Your task to perform on an android device: Open Maps and search for coffee Image 0: 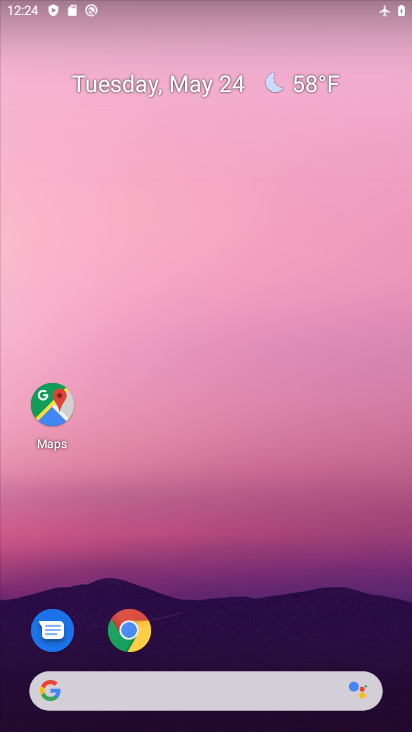
Step 0: click (56, 407)
Your task to perform on an android device: Open Maps and search for coffee Image 1: 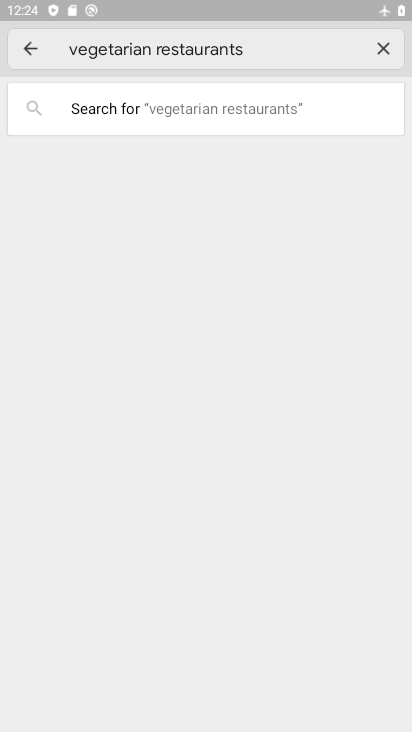
Step 1: click (382, 50)
Your task to perform on an android device: Open Maps and search for coffee Image 2: 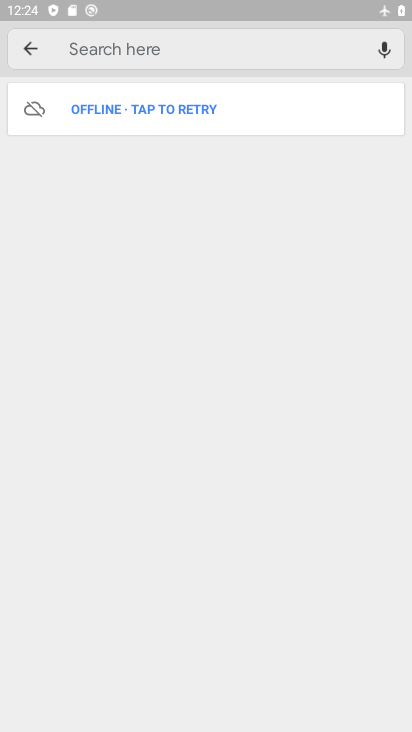
Step 2: click (275, 57)
Your task to perform on an android device: Open Maps and search for coffee Image 3: 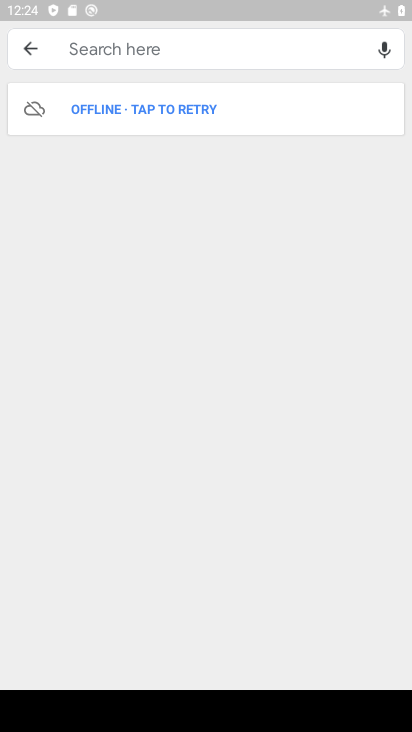
Step 3: type "coffee"
Your task to perform on an android device: Open Maps and search for coffee Image 4: 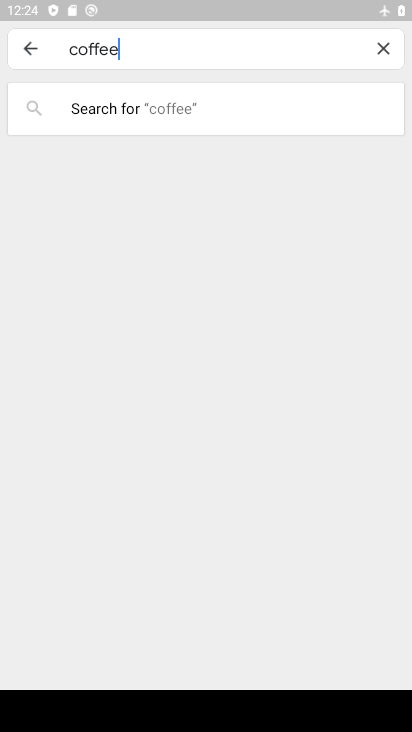
Step 4: press back button
Your task to perform on an android device: Open Maps and search for coffee Image 5: 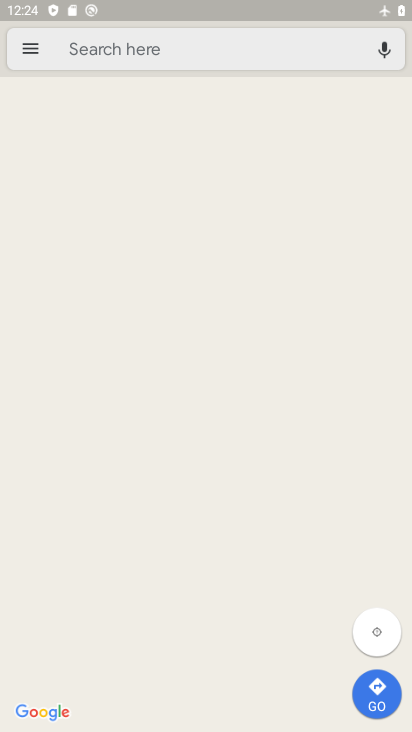
Step 5: press back button
Your task to perform on an android device: Open Maps and search for coffee Image 6: 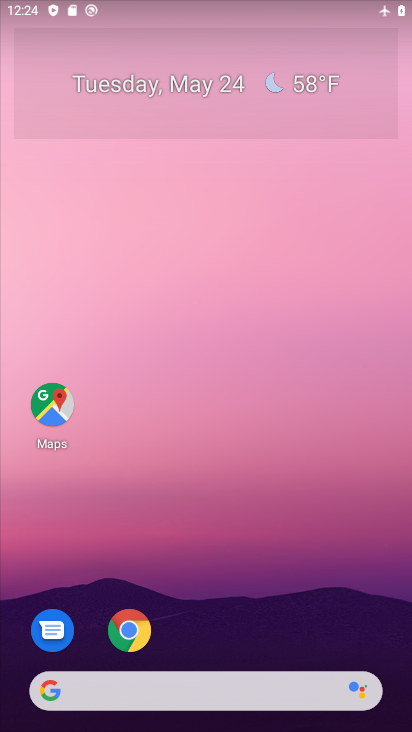
Step 6: drag from (263, 642) to (225, 62)
Your task to perform on an android device: Open Maps and search for coffee Image 7: 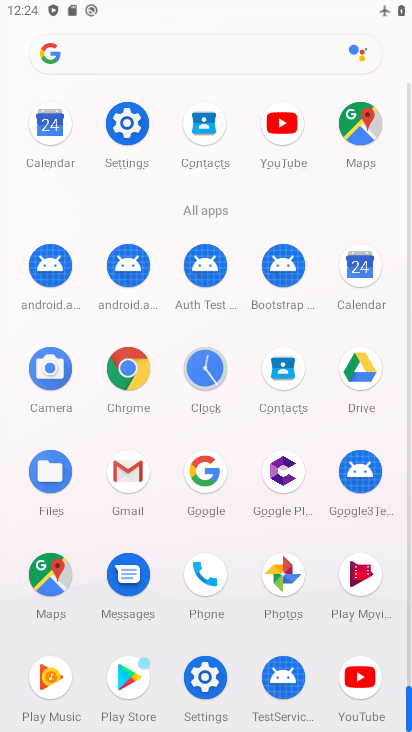
Step 7: click (127, 119)
Your task to perform on an android device: Open Maps and search for coffee Image 8: 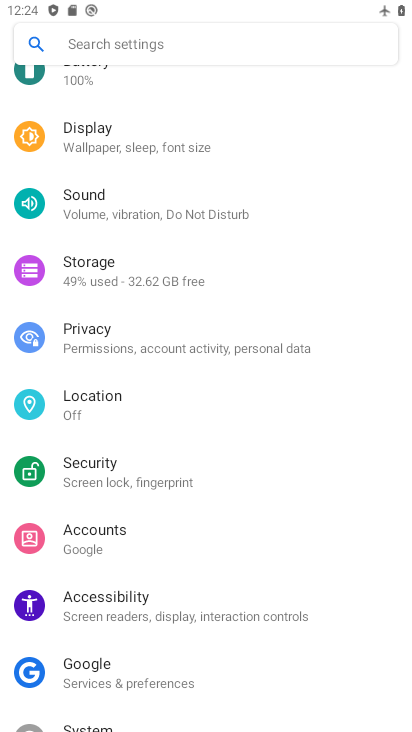
Step 8: drag from (173, 169) to (161, 227)
Your task to perform on an android device: Open Maps and search for coffee Image 9: 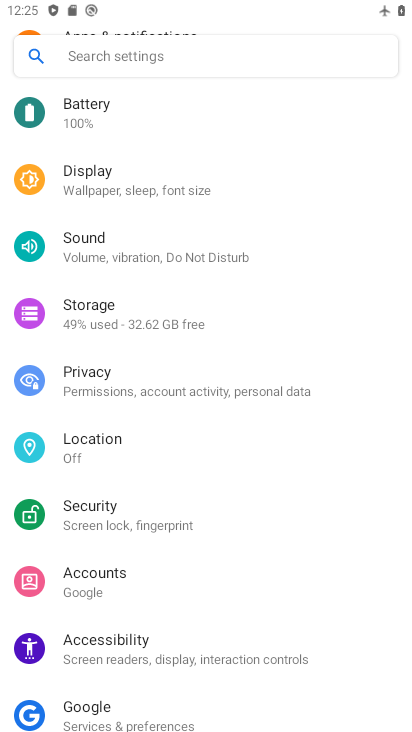
Step 9: drag from (182, 131) to (184, 302)
Your task to perform on an android device: Open Maps and search for coffee Image 10: 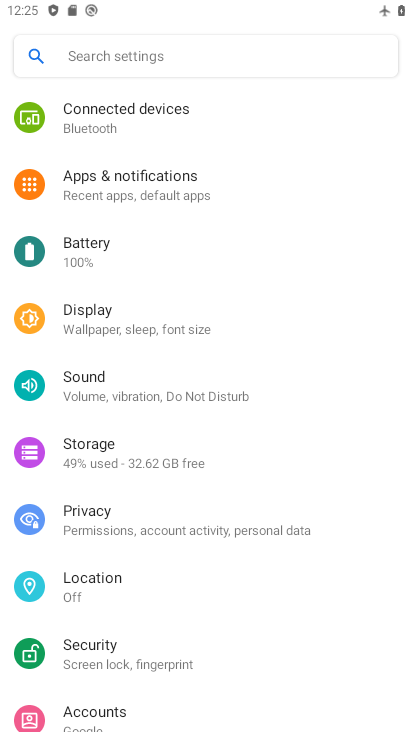
Step 10: drag from (152, 107) to (163, 302)
Your task to perform on an android device: Open Maps and search for coffee Image 11: 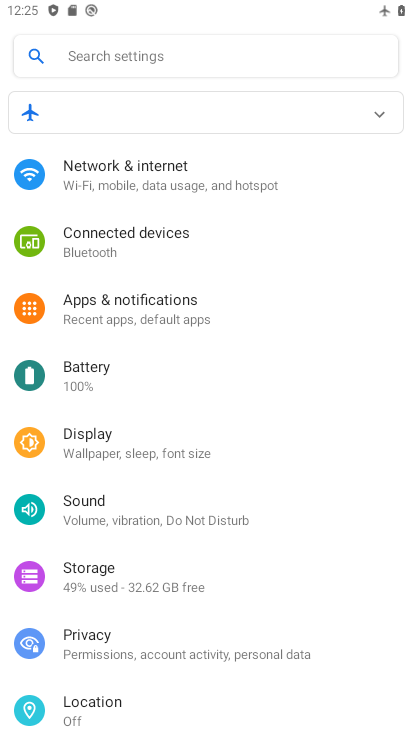
Step 11: click (141, 160)
Your task to perform on an android device: Open Maps and search for coffee Image 12: 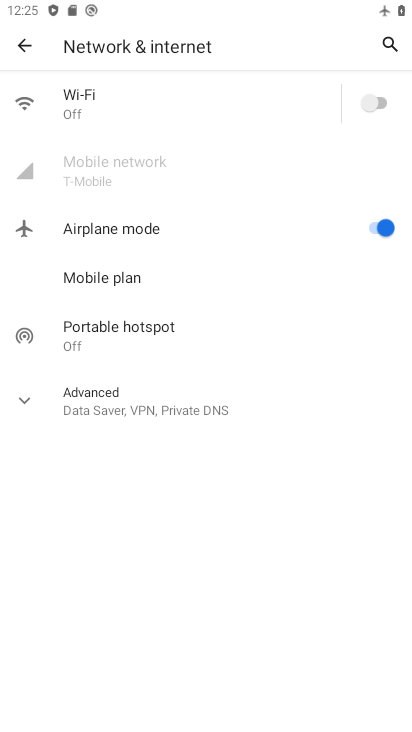
Step 12: click (385, 223)
Your task to perform on an android device: Open Maps and search for coffee Image 13: 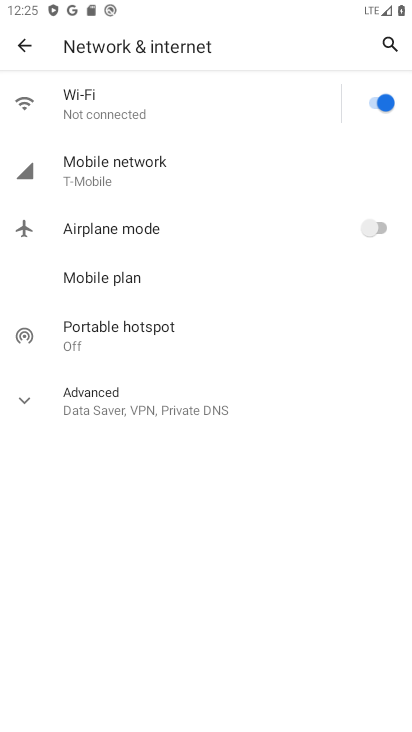
Step 13: press back button
Your task to perform on an android device: Open Maps and search for coffee Image 14: 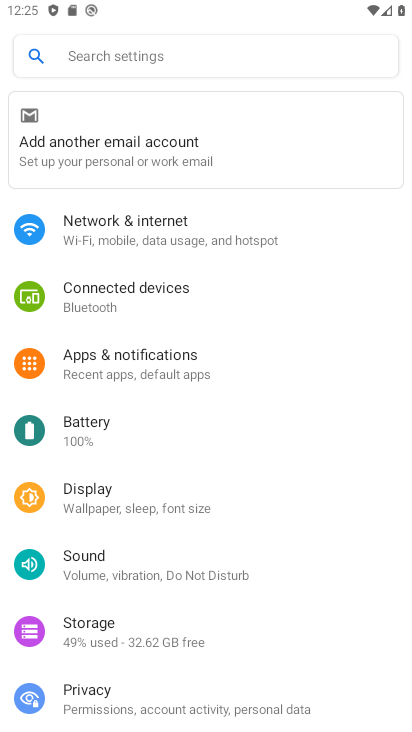
Step 14: press back button
Your task to perform on an android device: Open Maps and search for coffee Image 15: 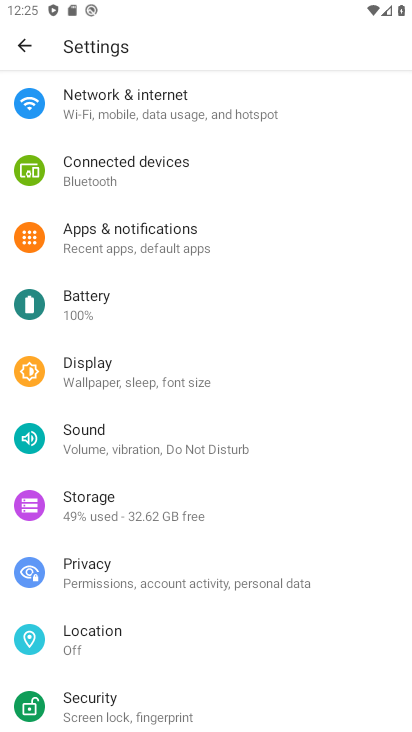
Step 15: press back button
Your task to perform on an android device: Open Maps and search for coffee Image 16: 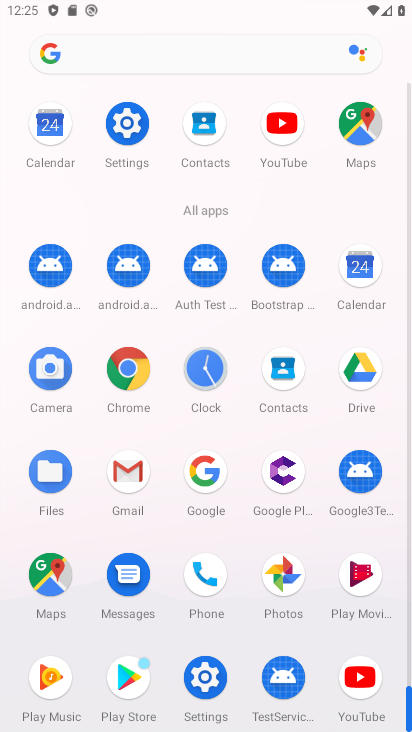
Step 16: press back button
Your task to perform on an android device: Open Maps and search for coffee Image 17: 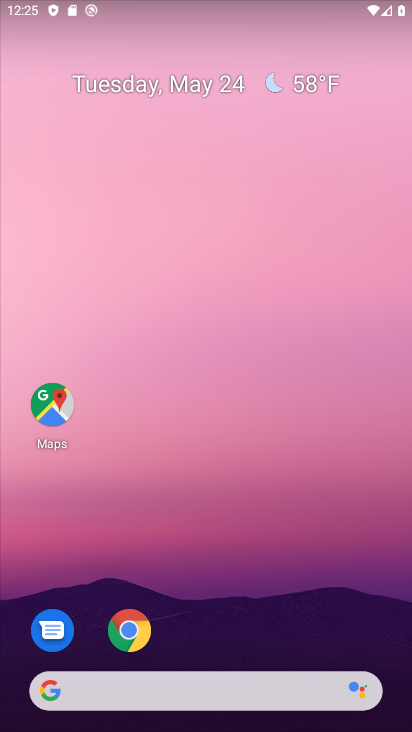
Step 17: press home button
Your task to perform on an android device: Open Maps and search for coffee Image 18: 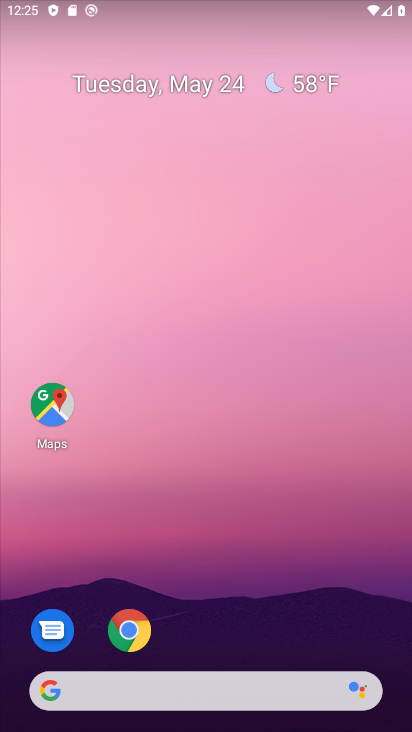
Step 18: click (51, 406)
Your task to perform on an android device: Open Maps and search for coffee Image 19: 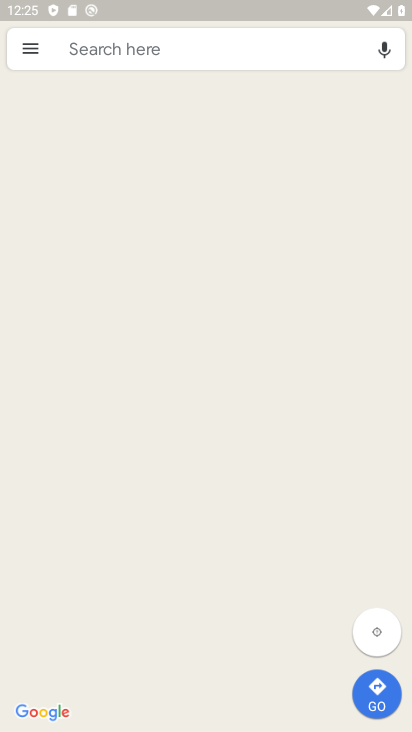
Step 19: click (225, 53)
Your task to perform on an android device: Open Maps and search for coffee Image 20: 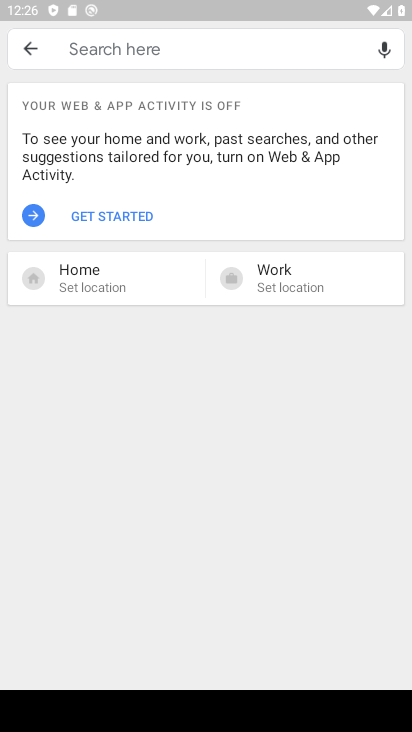
Step 20: type "coffee"
Your task to perform on an android device: Open Maps and search for coffee Image 21: 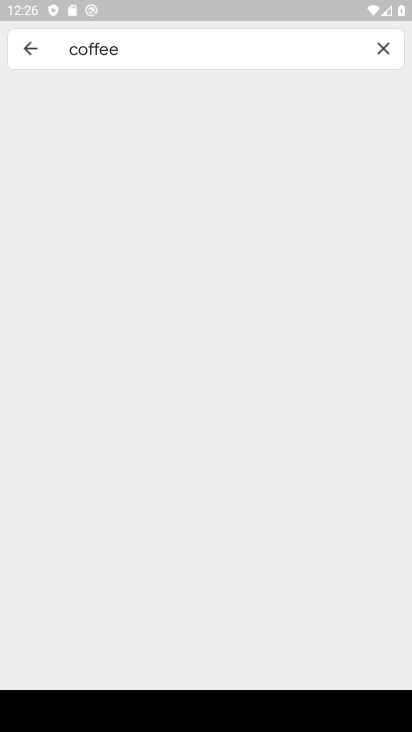
Step 21: click (382, 47)
Your task to perform on an android device: Open Maps and search for coffee Image 22: 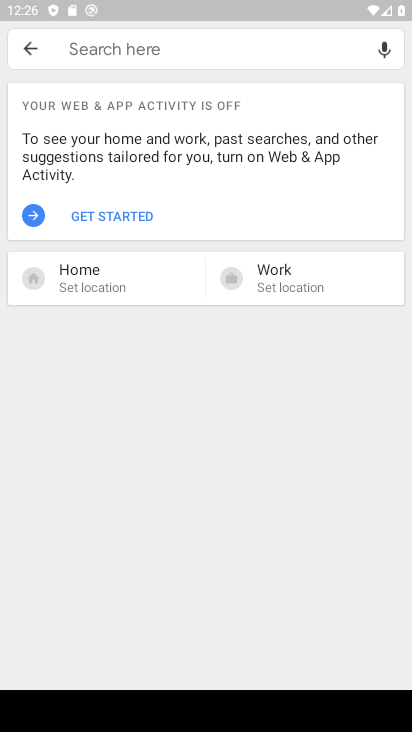
Step 22: click (240, 42)
Your task to perform on an android device: Open Maps and search for coffee Image 23: 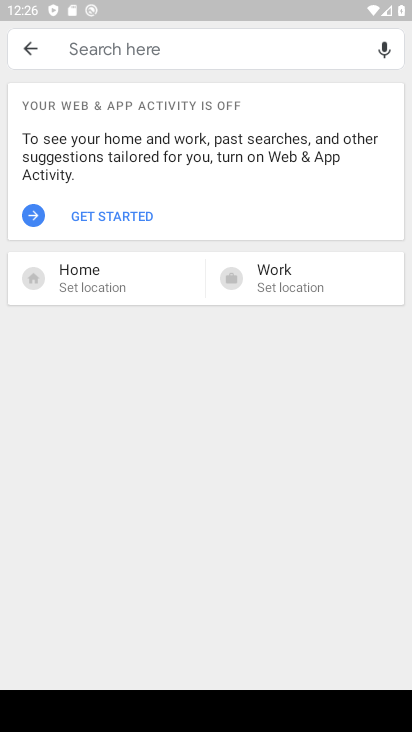
Step 23: click (141, 217)
Your task to perform on an android device: Open Maps and search for coffee Image 24: 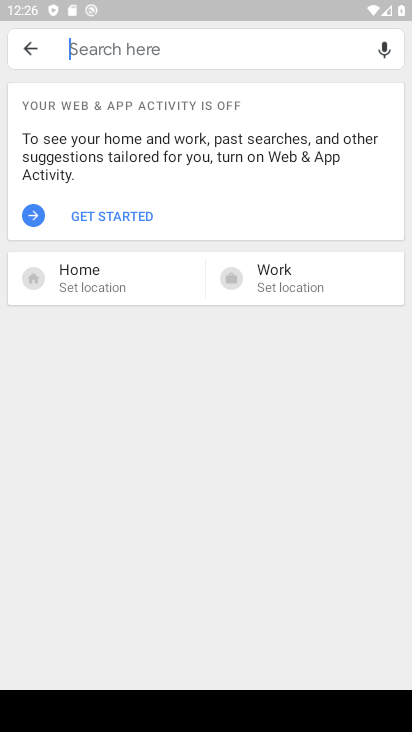
Step 24: task complete